Your task to perform on an android device: Open the stopwatch Image 0: 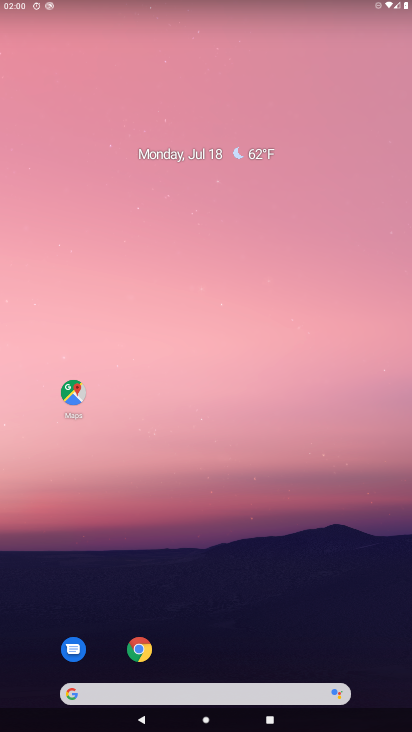
Step 0: drag from (30, 686) to (157, 32)
Your task to perform on an android device: Open the stopwatch Image 1: 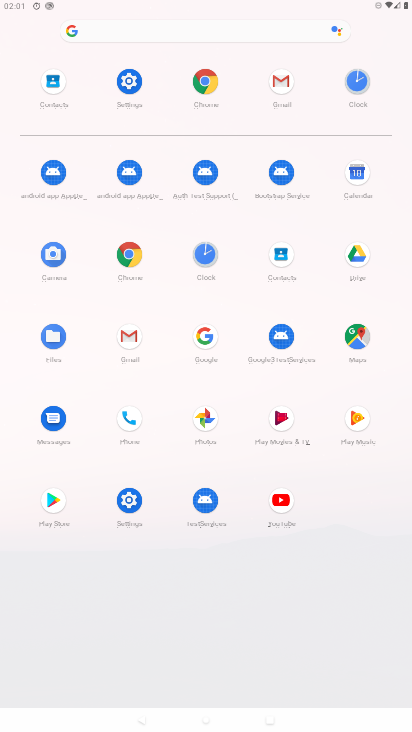
Step 1: click (338, 84)
Your task to perform on an android device: Open the stopwatch Image 2: 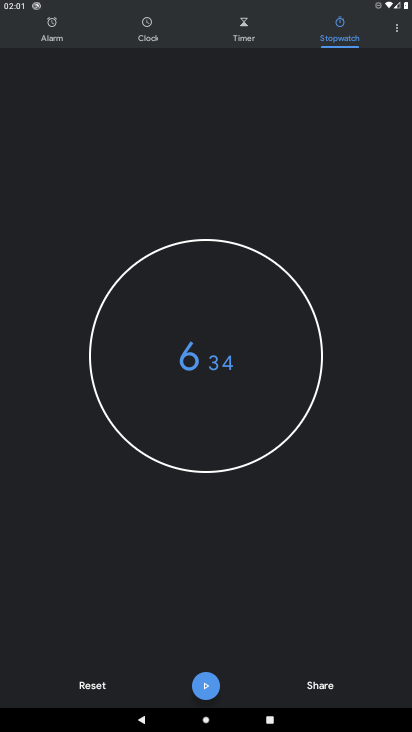
Step 2: click (218, 363)
Your task to perform on an android device: Open the stopwatch Image 3: 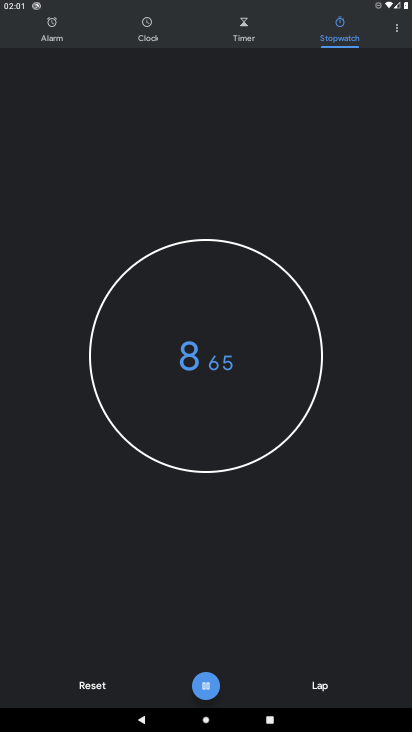
Step 3: click (192, 359)
Your task to perform on an android device: Open the stopwatch Image 4: 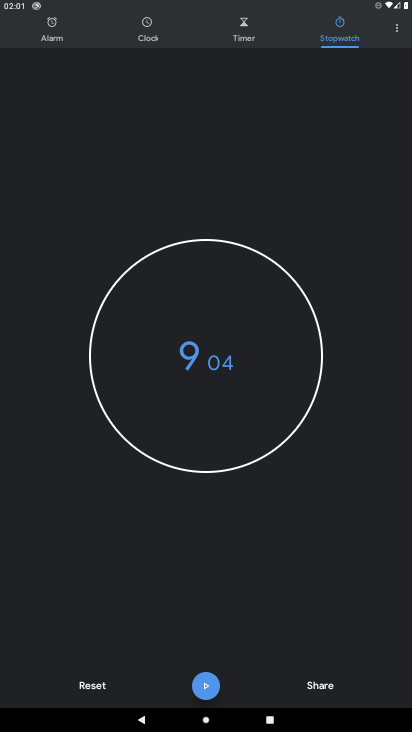
Step 4: task complete